Your task to perform on an android device: create a new album in the google photos Image 0: 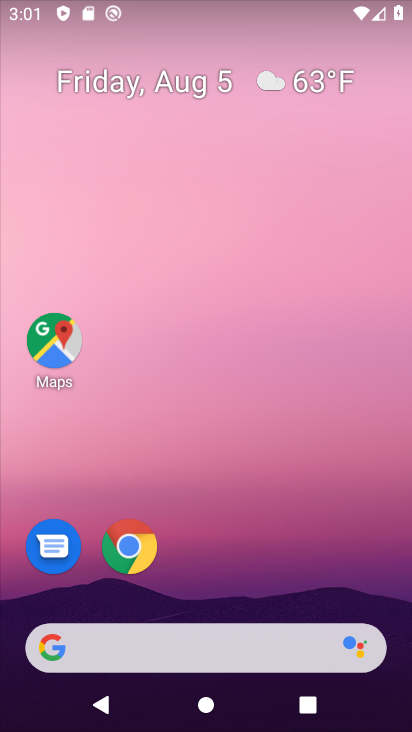
Step 0: press home button
Your task to perform on an android device: create a new album in the google photos Image 1: 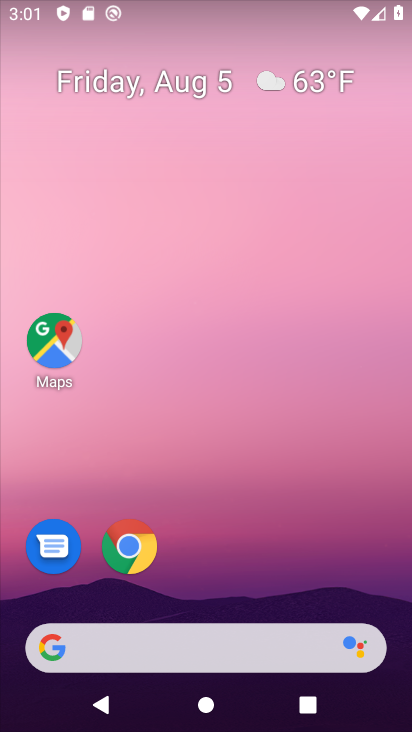
Step 1: drag from (306, 576) to (326, 113)
Your task to perform on an android device: create a new album in the google photos Image 2: 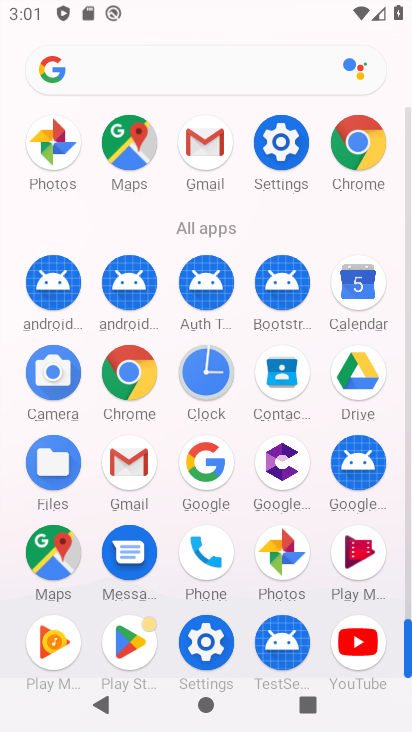
Step 2: click (289, 549)
Your task to perform on an android device: create a new album in the google photos Image 3: 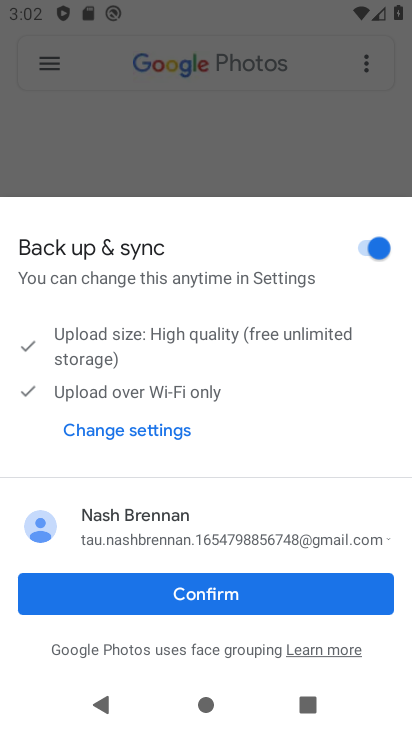
Step 3: click (271, 588)
Your task to perform on an android device: create a new album in the google photos Image 4: 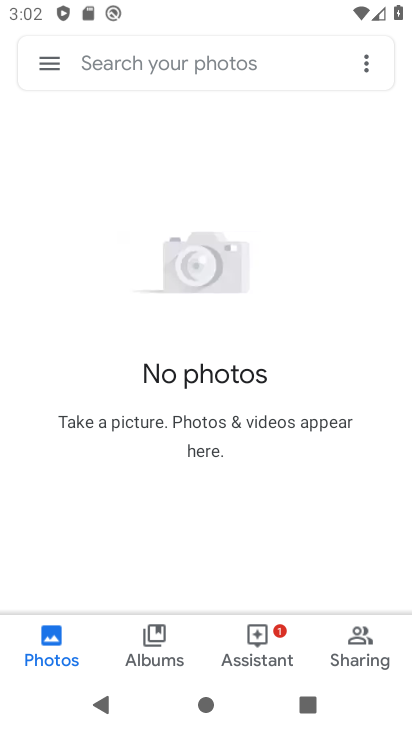
Step 4: click (367, 68)
Your task to perform on an android device: create a new album in the google photos Image 5: 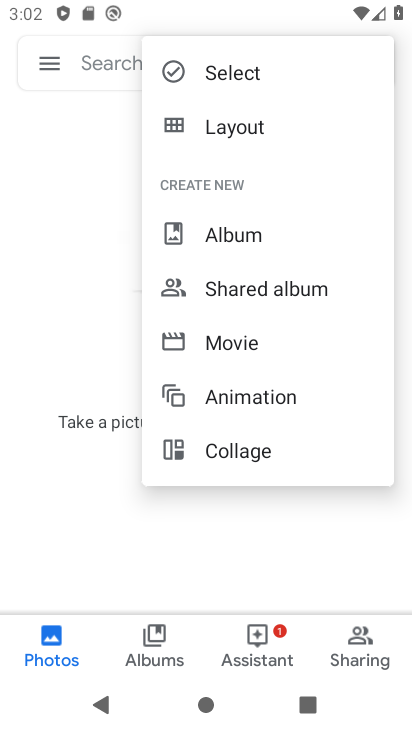
Step 5: click (241, 241)
Your task to perform on an android device: create a new album in the google photos Image 6: 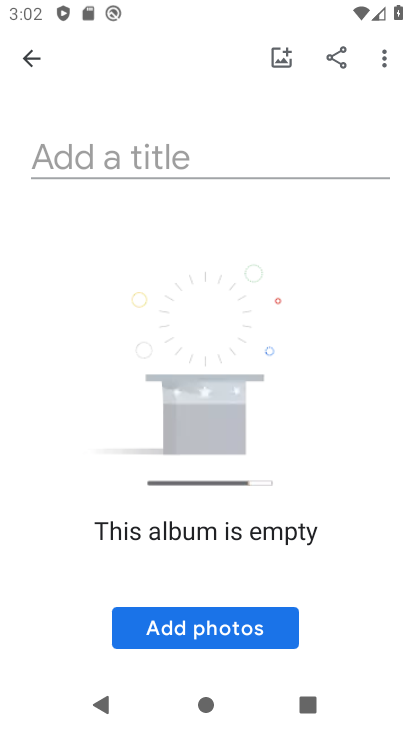
Step 6: click (241, 140)
Your task to perform on an android device: create a new album in the google photos Image 7: 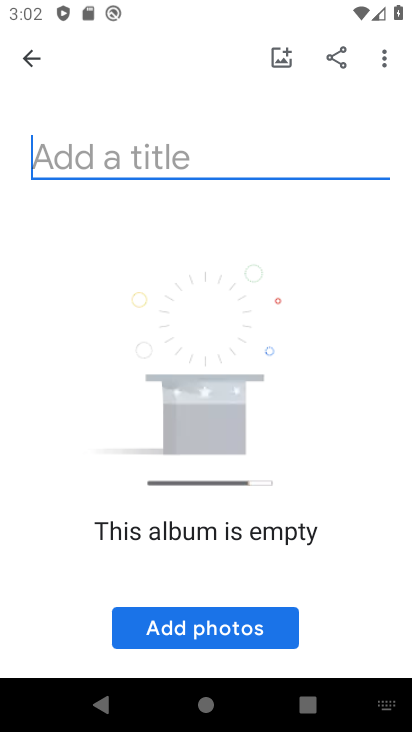
Step 7: type "fav"
Your task to perform on an android device: create a new album in the google photos Image 8: 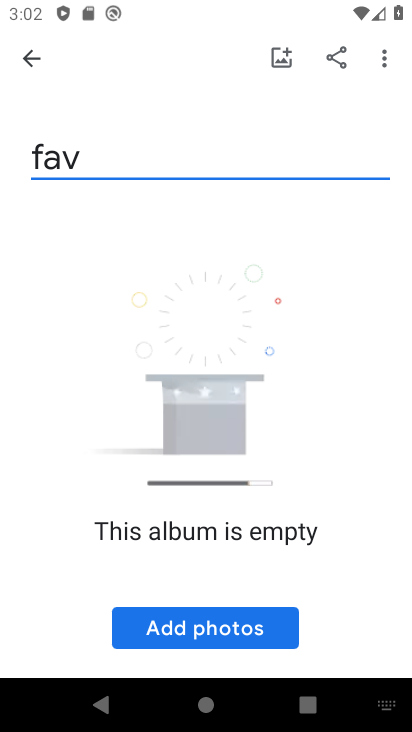
Step 8: click (253, 628)
Your task to perform on an android device: create a new album in the google photos Image 9: 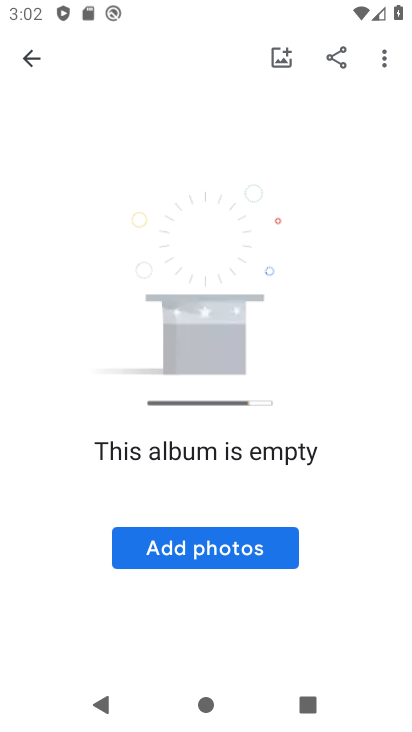
Step 9: click (212, 552)
Your task to perform on an android device: create a new album in the google photos Image 10: 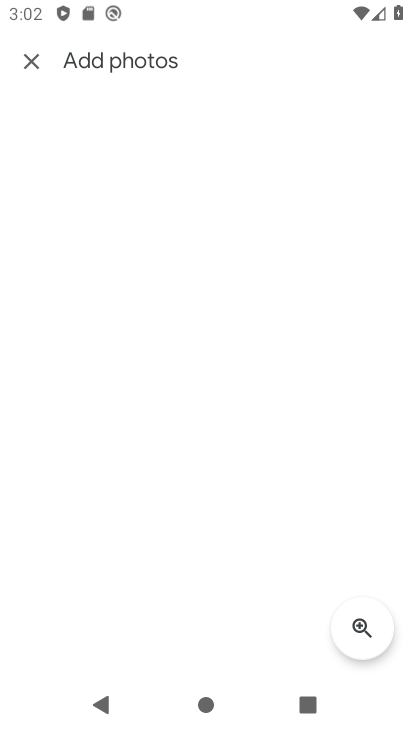
Step 10: task complete